Your task to perform on an android device: What's the weather going to be this weekend? Image 0: 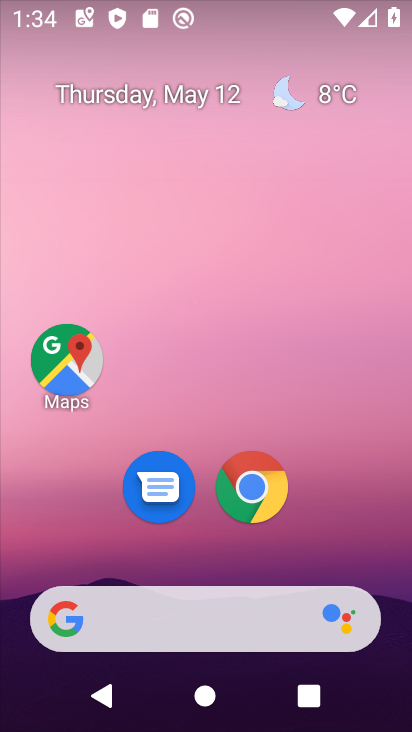
Step 0: click (202, 617)
Your task to perform on an android device: What's the weather going to be this weekend? Image 1: 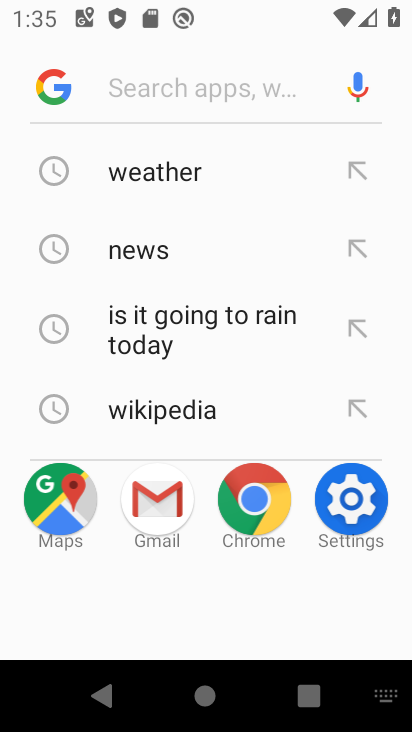
Step 1: type "what's the weather going to be this weekend"
Your task to perform on an android device: What's the weather going to be this weekend? Image 2: 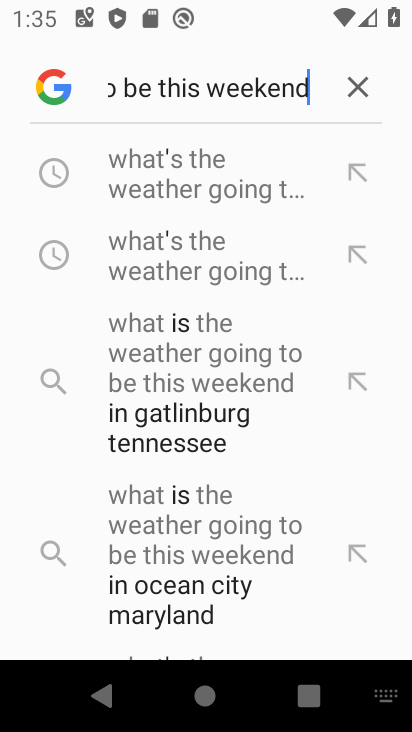
Step 2: click (180, 175)
Your task to perform on an android device: What's the weather going to be this weekend? Image 3: 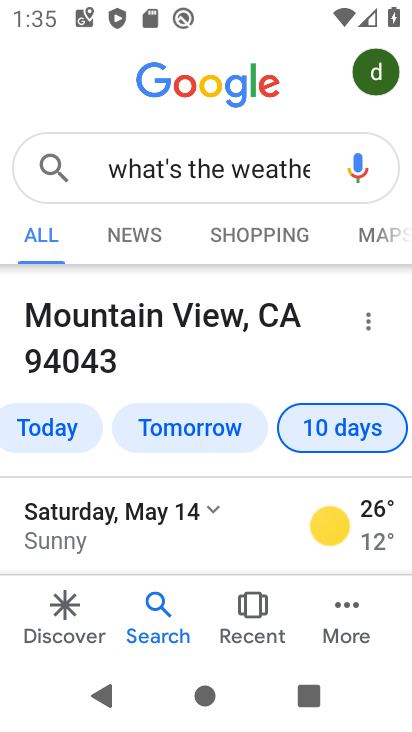
Step 3: task complete